Your task to perform on an android device: manage bookmarks in the chrome app Image 0: 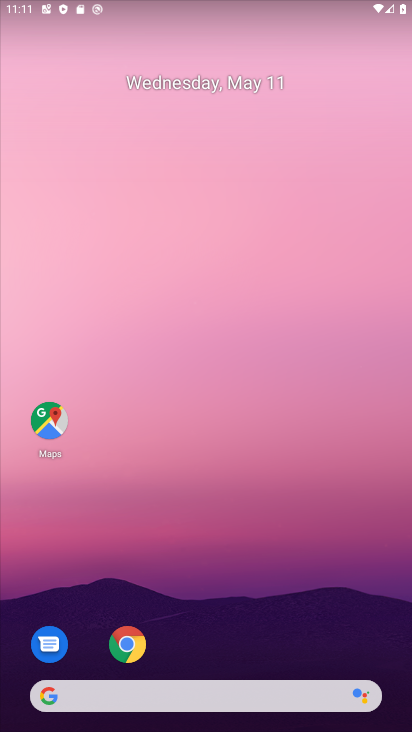
Step 0: click (141, 640)
Your task to perform on an android device: manage bookmarks in the chrome app Image 1: 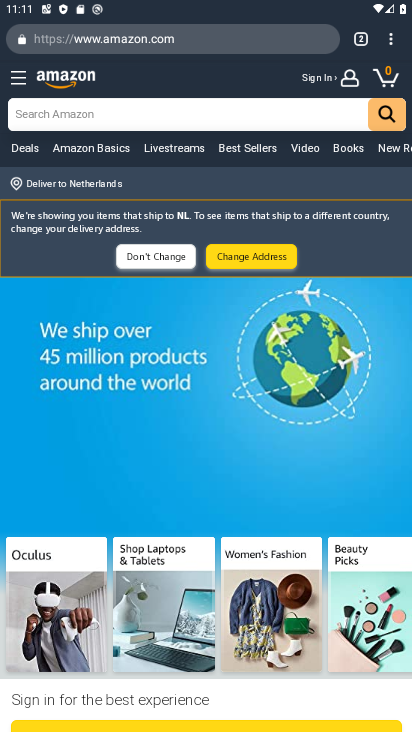
Step 1: click (384, 47)
Your task to perform on an android device: manage bookmarks in the chrome app Image 2: 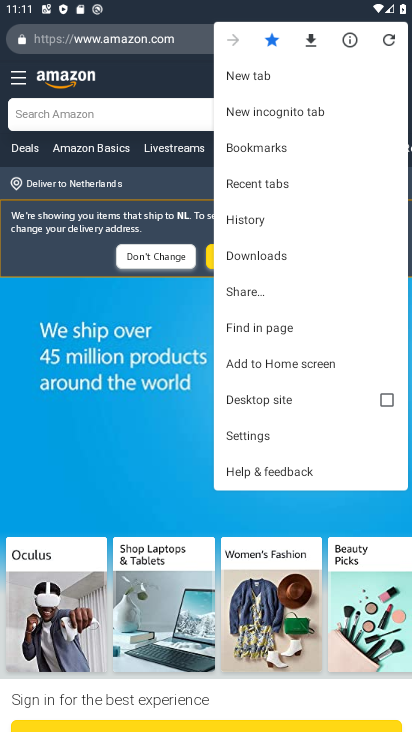
Step 2: click (313, 144)
Your task to perform on an android device: manage bookmarks in the chrome app Image 3: 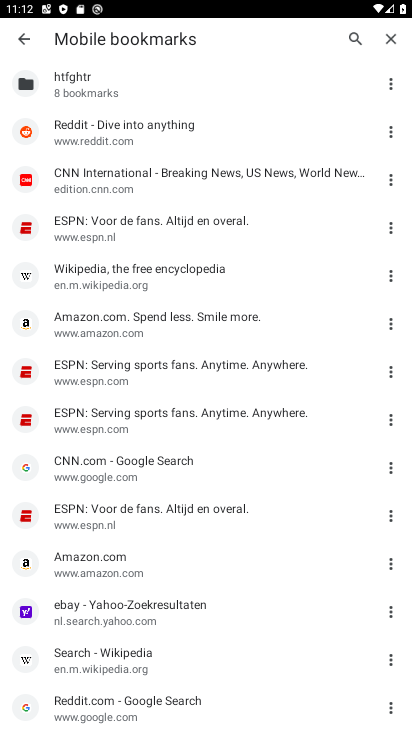
Step 3: click (10, 48)
Your task to perform on an android device: manage bookmarks in the chrome app Image 4: 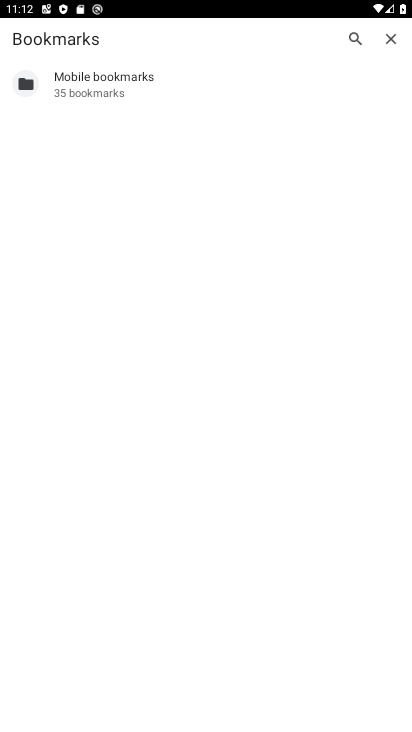
Step 4: click (384, 42)
Your task to perform on an android device: manage bookmarks in the chrome app Image 5: 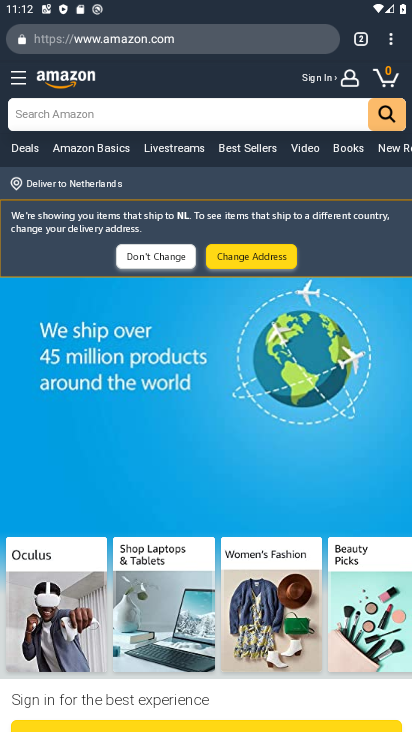
Step 5: click (399, 37)
Your task to perform on an android device: manage bookmarks in the chrome app Image 6: 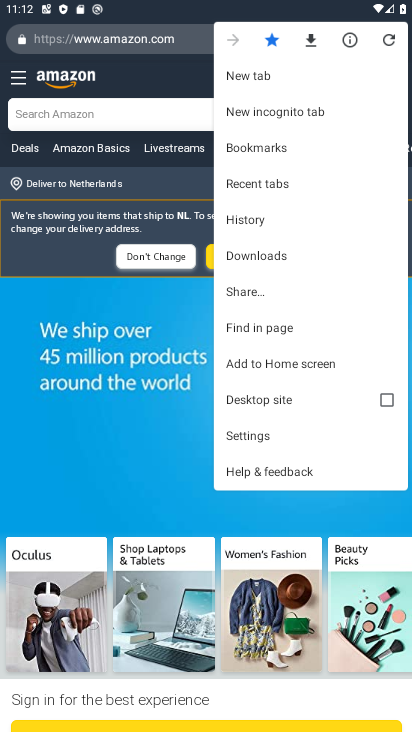
Step 6: click (270, 154)
Your task to perform on an android device: manage bookmarks in the chrome app Image 7: 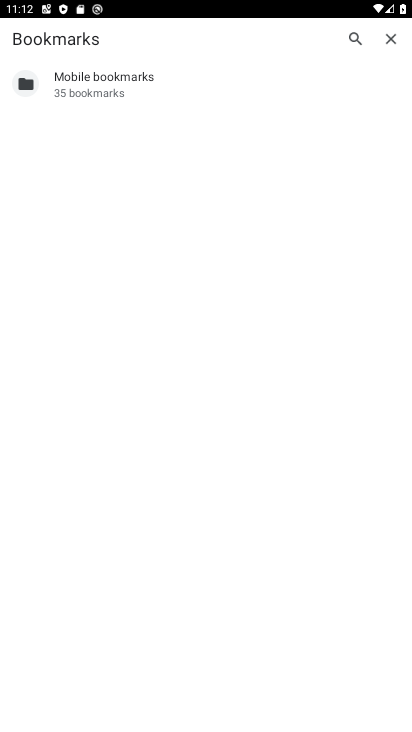
Step 7: click (225, 96)
Your task to perform on an android device: manage bookmarks in the chrome app Image 8: 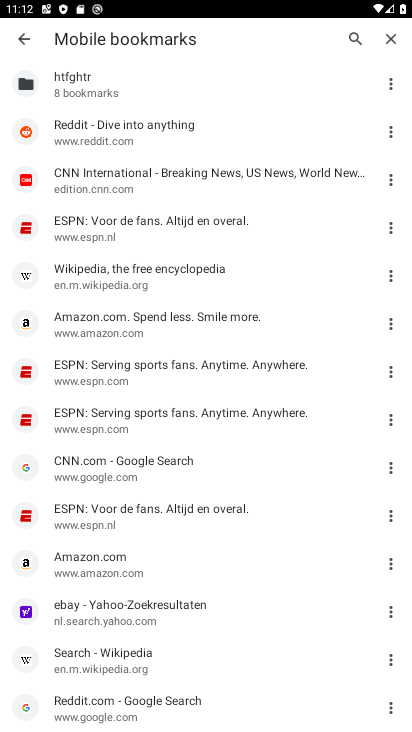
Step 8: click (209, 208)
Your task to perform on an android device: manage bookmarks in the chrome app Image 9: 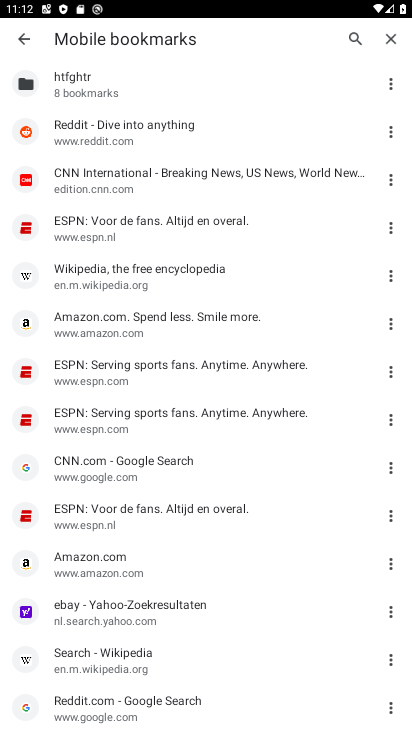
Step 9: task complete